Your task to perform on an android device: check the backup settings in the google photos Image 0: 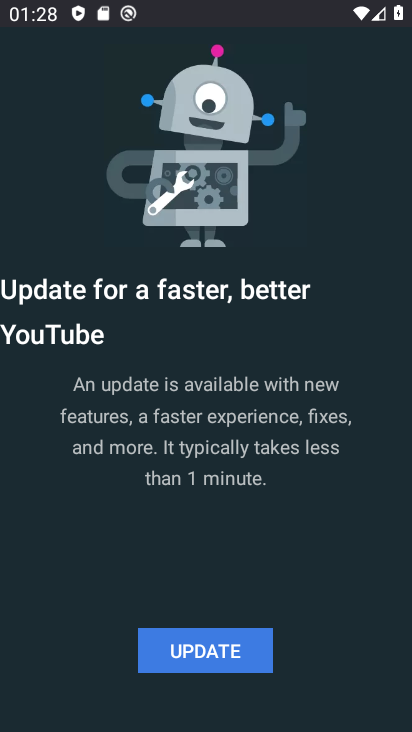
Step 0: press home button
Your task to perform on an android device: check the backup settings in the google photos Image 1: 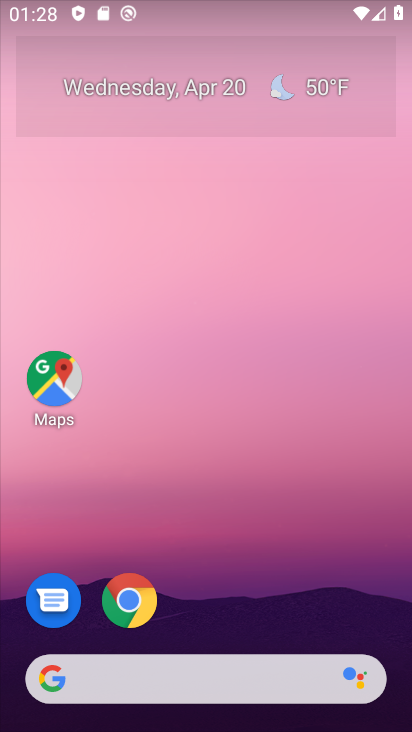
Step 1: drag from (235, 638) to (224, 202)
Your task to perform on an android device: check the backup settings in the google photos Image 2: 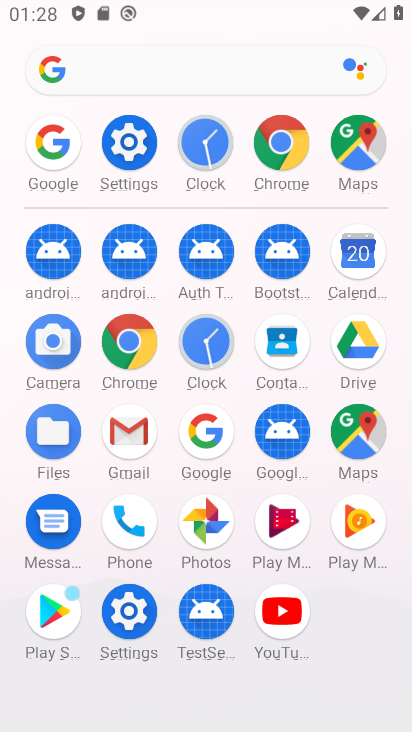
Step 2: click (216, 524)
Your task to perform on an android device: check the backup settings in the google photos Image 3: 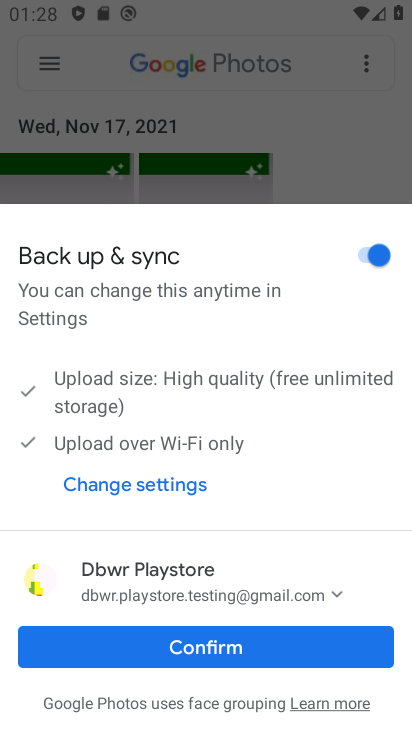
Step 3: click (221, 645)
Your task to perform on an android device: check the backup settings in the google photos Image 4: 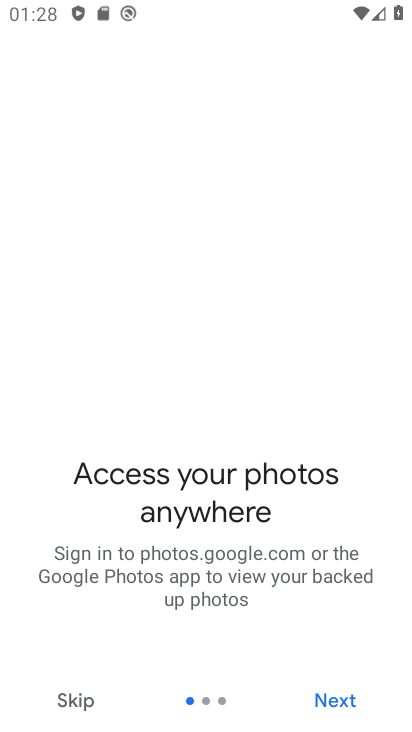
Step 4: click (344, 715)
Your task to perform on an android device: check the backup settings in the google photos Image 5: 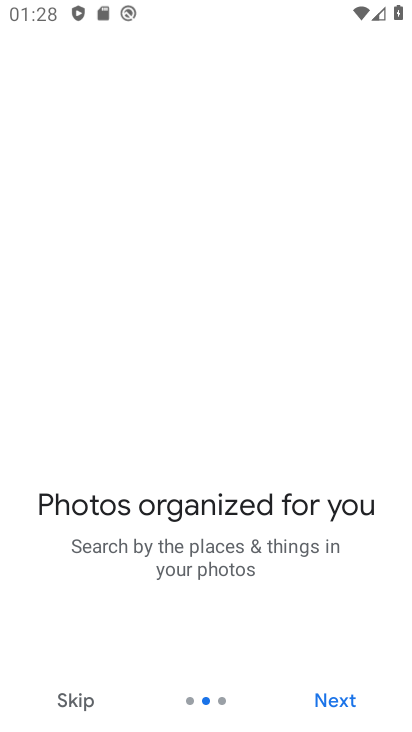
Step 5: click (344, 715)
Your task to perform on an android device: check the backup settings in the google photos Image 6: 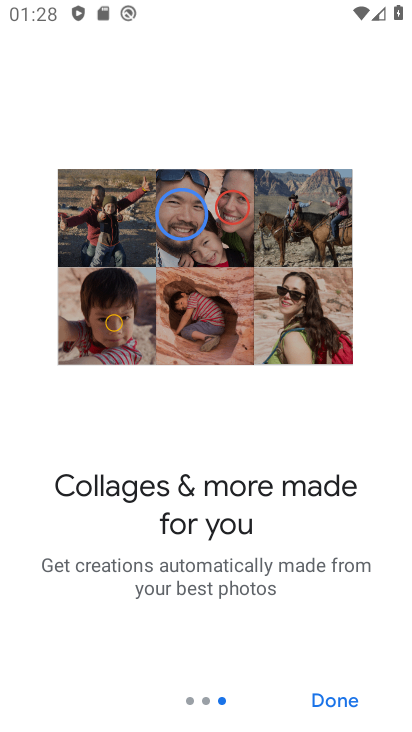
Step 6: click (344, 715)
Your task to perform on an android device: check the backup settings in the google photos Image 7: 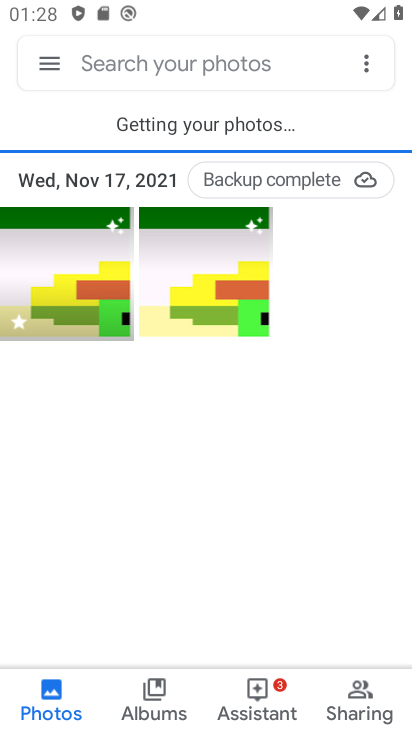
Step 7: click (360, 60)
Your task to perform on an android device: check the backup settings in the google photos Image 8: 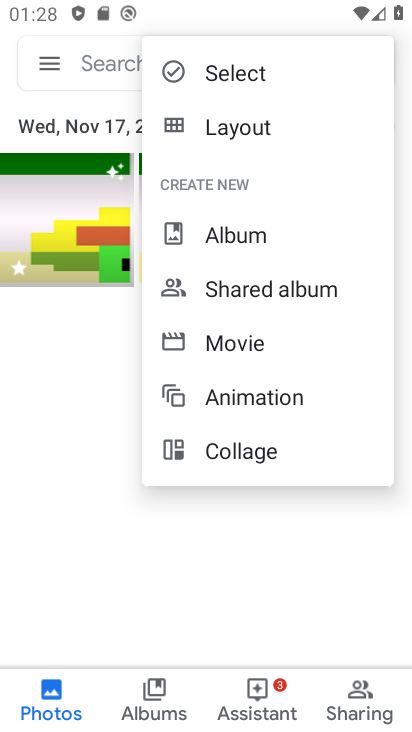
Step 8: click (45, 56)
Your task to perform on an android device: check the backup settings in the google photos Image 9: 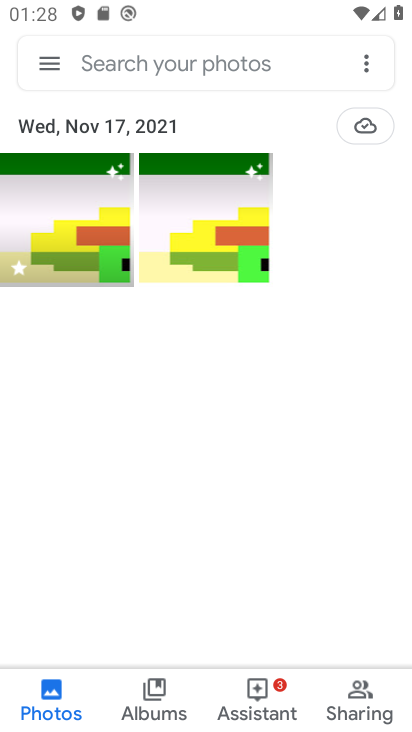
Step 9: click (45, 56)
Your task to perform on an android device: check the backup settings in the google photos Image 10: 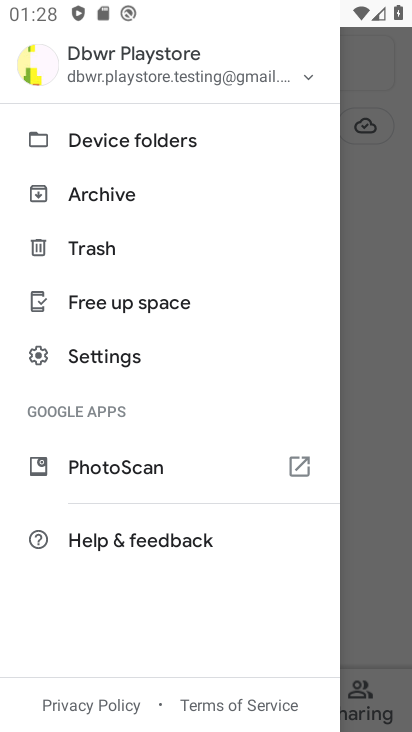
Step 10: click (129, 355)
Your task to perform on an android device: check the backup settings in the google photos Image 11: 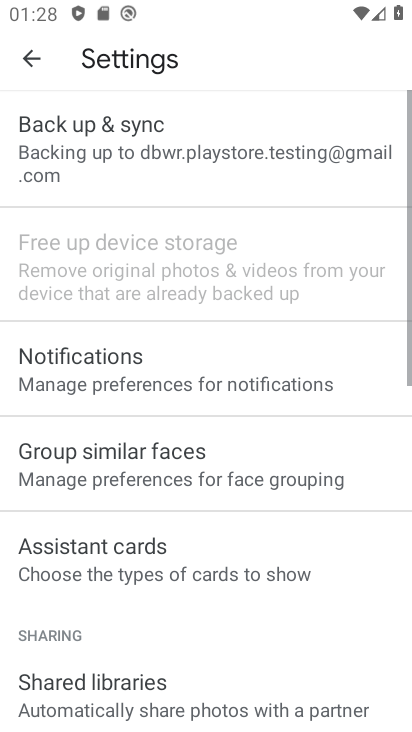
Step 11: click (166, 125)
Your task to perform on an android device: check the backup settings in the google photos Image 12: 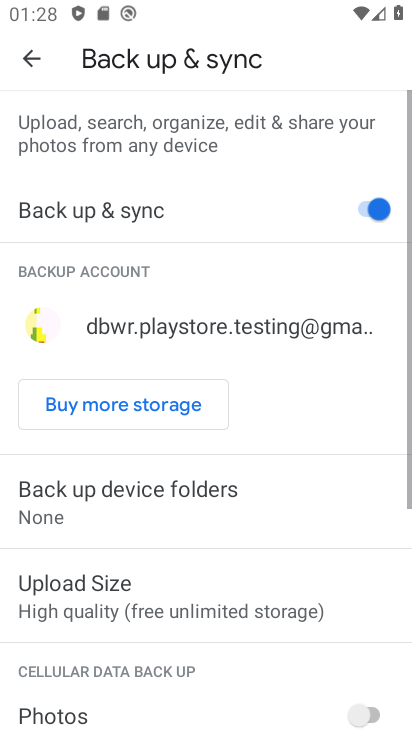
Step 12: task complete